Your task to perform on an android device: Open calendar and show me the second week of next month Image 0: 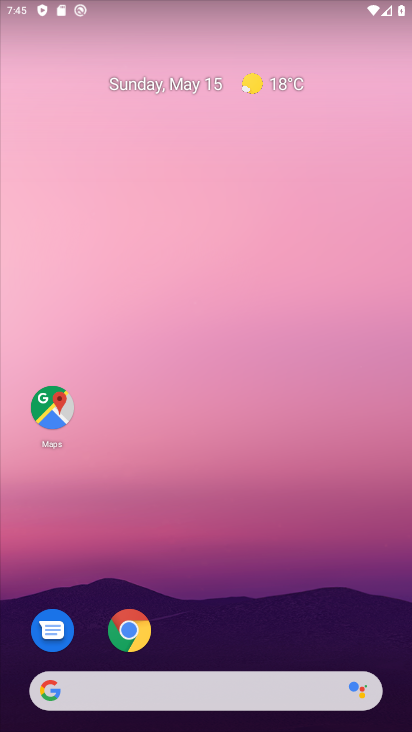
Step 0: drag from (183, 671) to (269, 78)
Your task to perform on an android device: Open calendar and show me the second week of next month Image 1: 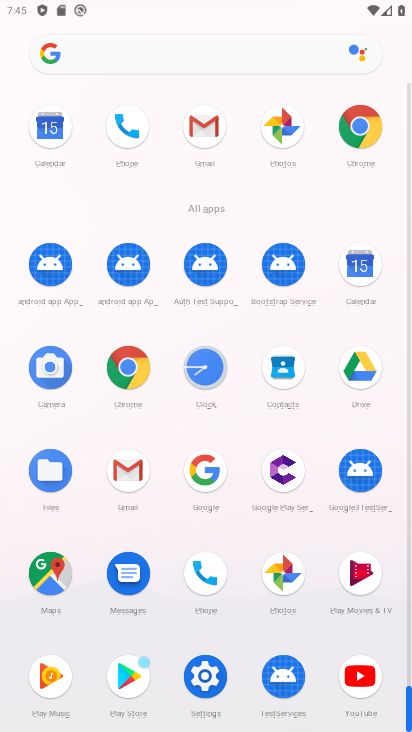
Step 1: click (358, 269)
Your task to perform on an android device: Open calendar and show me the second week of next month Image 2: 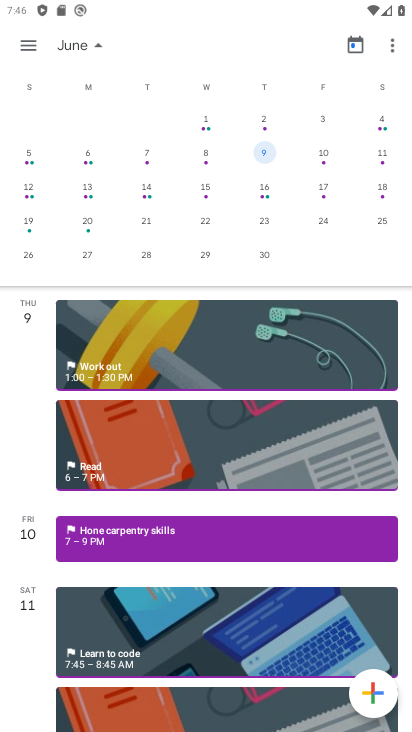
Step 2: drag from (236, 636) to (275, 260)
Your task to perform on an android device: Open calendar and show me the second week of next month Image 3: 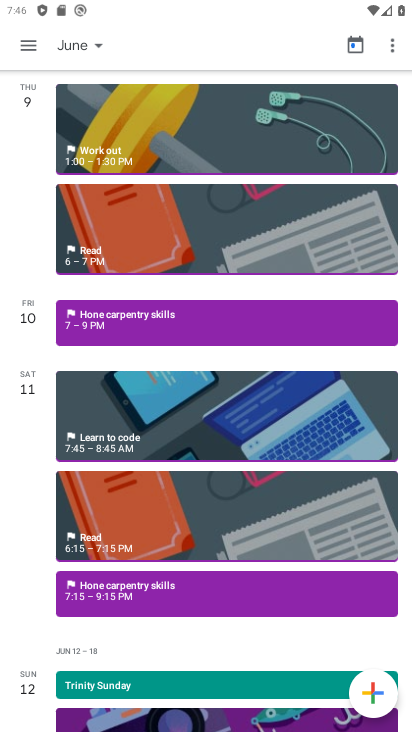
Step 3: drag from (269, 169) to (295, 720)
Your task to perform on an android device: Open calendar and show me the second week of next month Image 4: 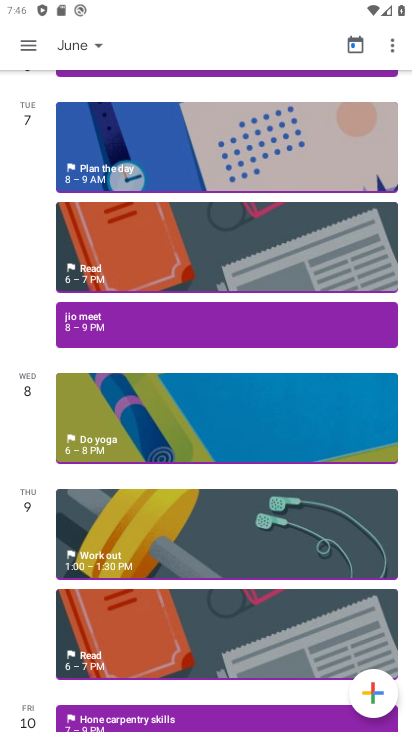
Step 4: drag from (203, 105) to (227, 457)
Your task to perform on an android device: Open calendar and show me the second week of next month Image 5: 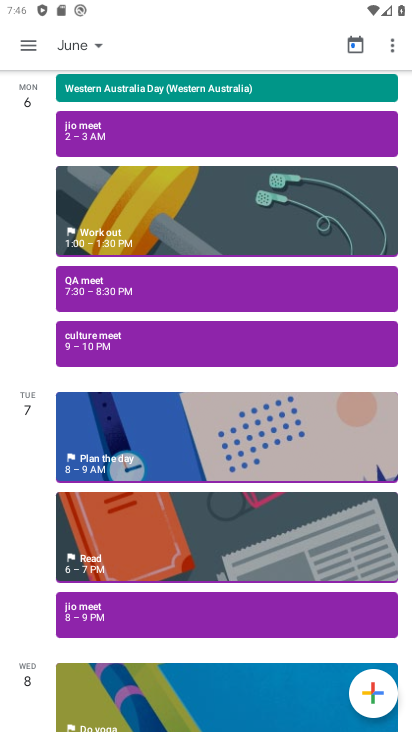
Step 5: click (70, 40)
Your task to perform on an android device: Open calendar and show me the second week of next month Image 6: 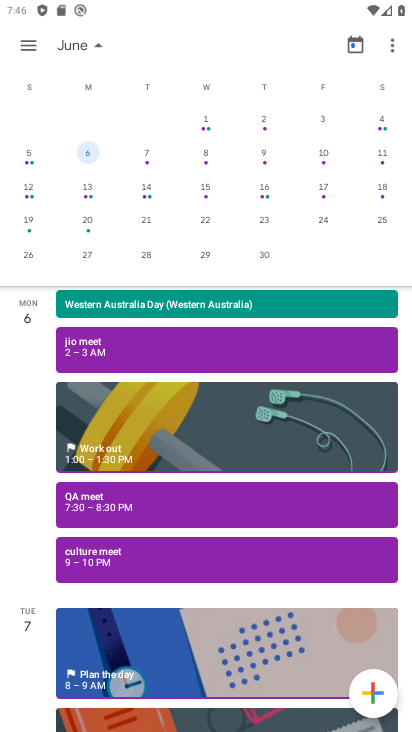
Step 6: click (266, 152)
Your task to perform on an android device: Open calendar and show me the second week of next month Image 7: 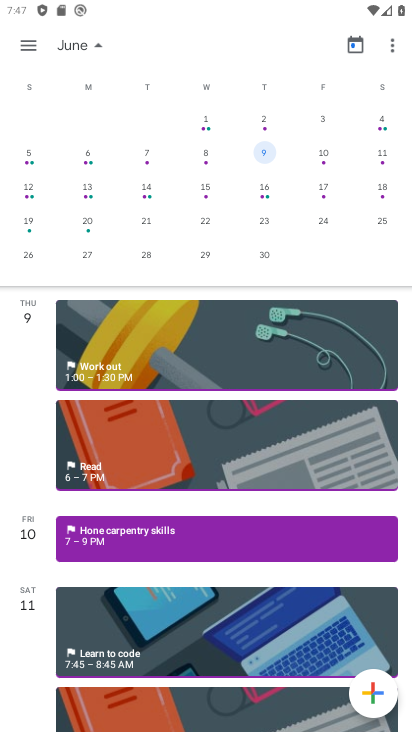
Step 7: task complete